Your task to perform on an android device: Go to Amazon Image 0: 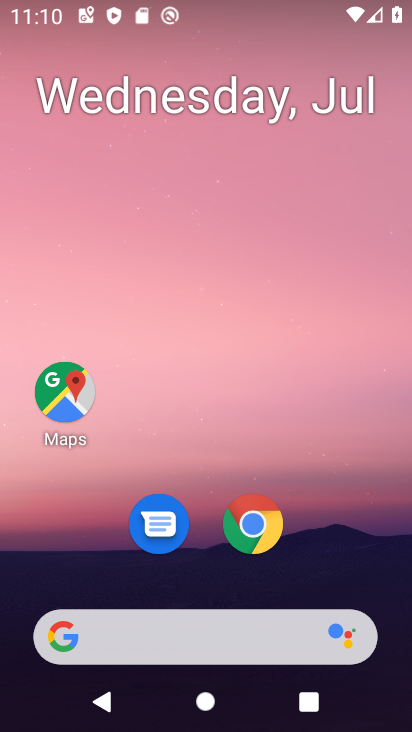
Step 0: click (257, 523)
Your task to perform on an android device: Go to Amazon Image 1: 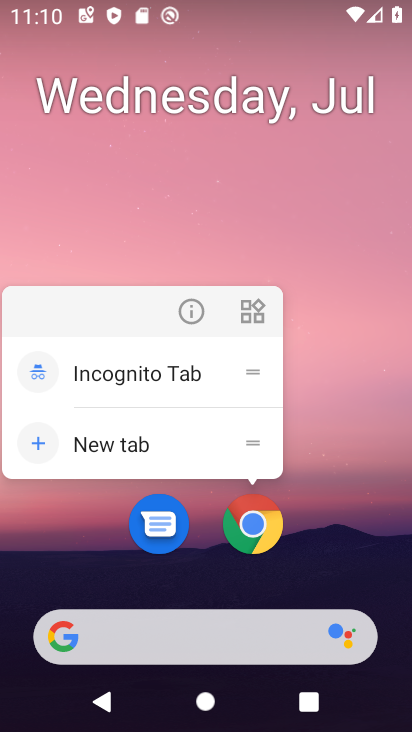
Step 1: click (257, 521)
Your task to perform on an android device: Go to Amazon Image 2: 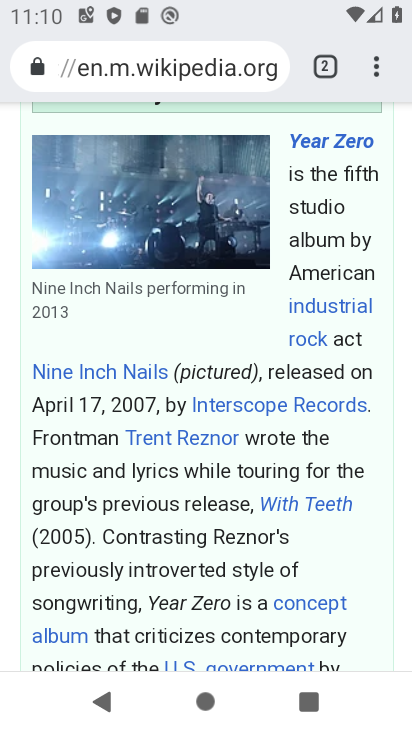
Step 2: drag from (375, 60) to (206, 140)
Your task to perform on an android device: Go to Amazon Image 3: 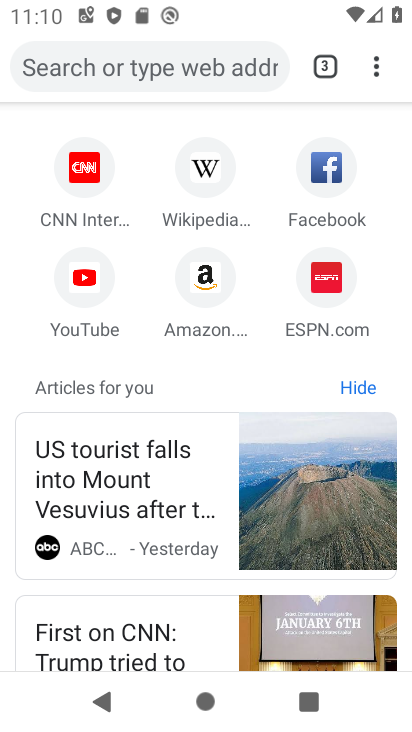
Step 3: click (206, 290)
Your task to perform on an android device: Go to Amazon Image 4: 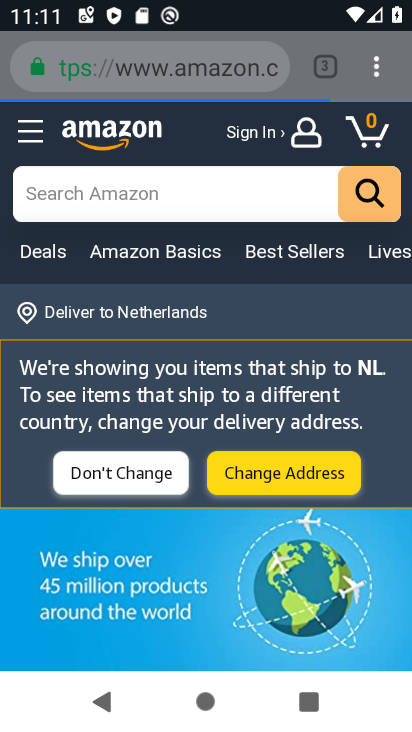
Step 4: task complete